Your task to perform on an android device: turn pop-ups on in chrome Image 0: 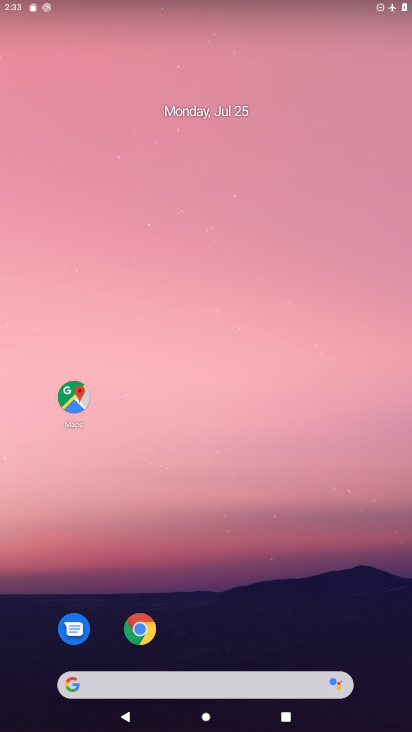
Step 0: drag from (253, 573) to (134, 15)
Your task to perform on an android device: turn pop-ups on in chrome Image 1: 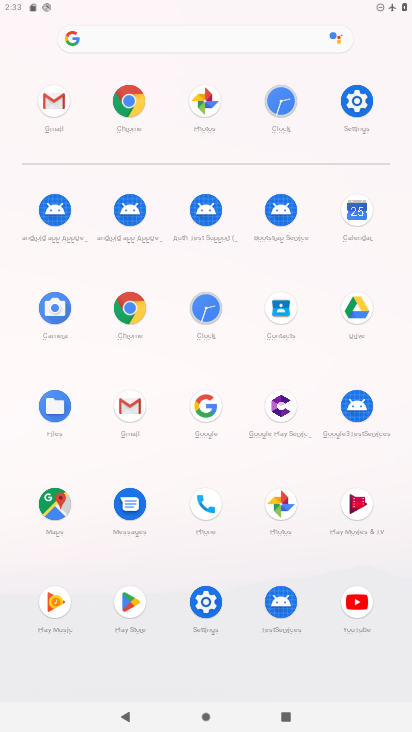
Step 1: click (137, 99)
Your task to perform on an android device: turn pop-ups on in chrome Image 2: 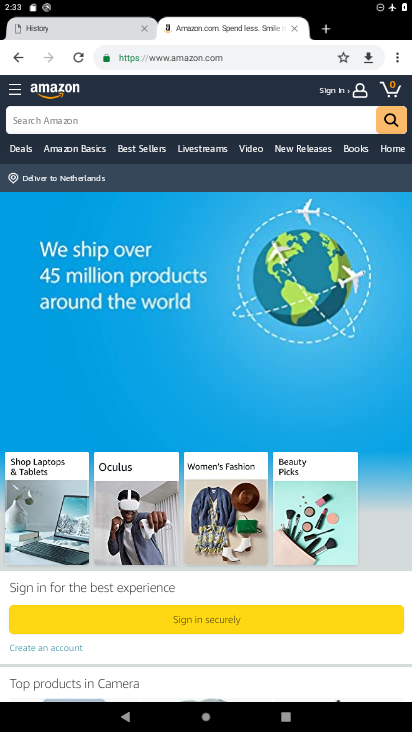
Step 2: drag from (402, 58) to (273, 354)
Your task to perform on an android device: turn pop-ups on in chrome Image 3: 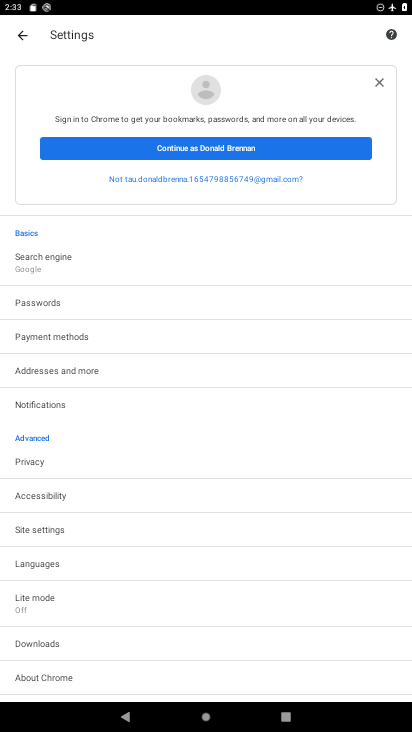
Step 3: click (48, 526)
Your task to perform on an android device: turn pop-ups on in chrome Image 4: 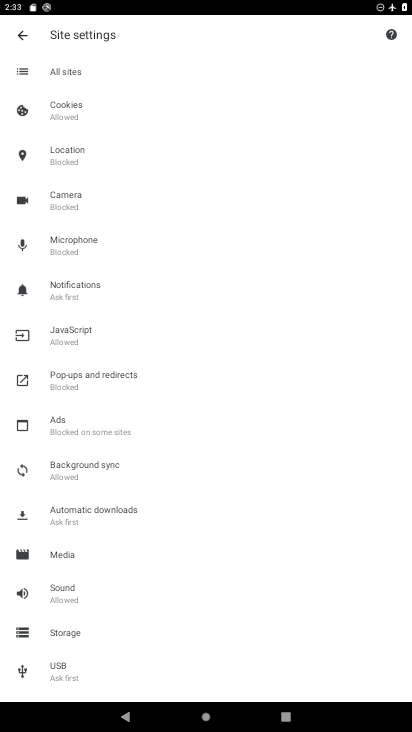
Step 4: click (72, 377)
Your task to perform on an android device: turn pop-ups on in chrome Image 5: 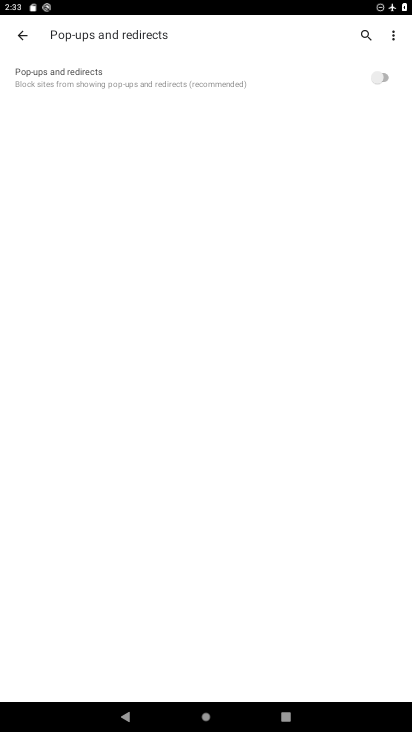
Step 5: click (377, 72)
Your task to perform on an android device: turn pop-ups on in chrome Image 6: 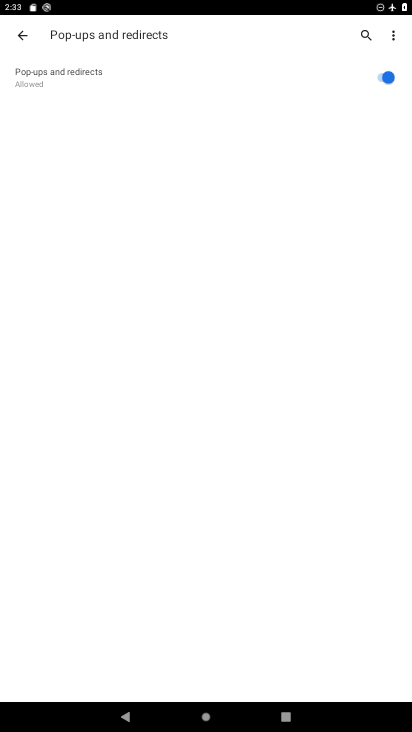
Step 6: task complete